Your task to perform on an android device: install app "Google Home" Image 0: 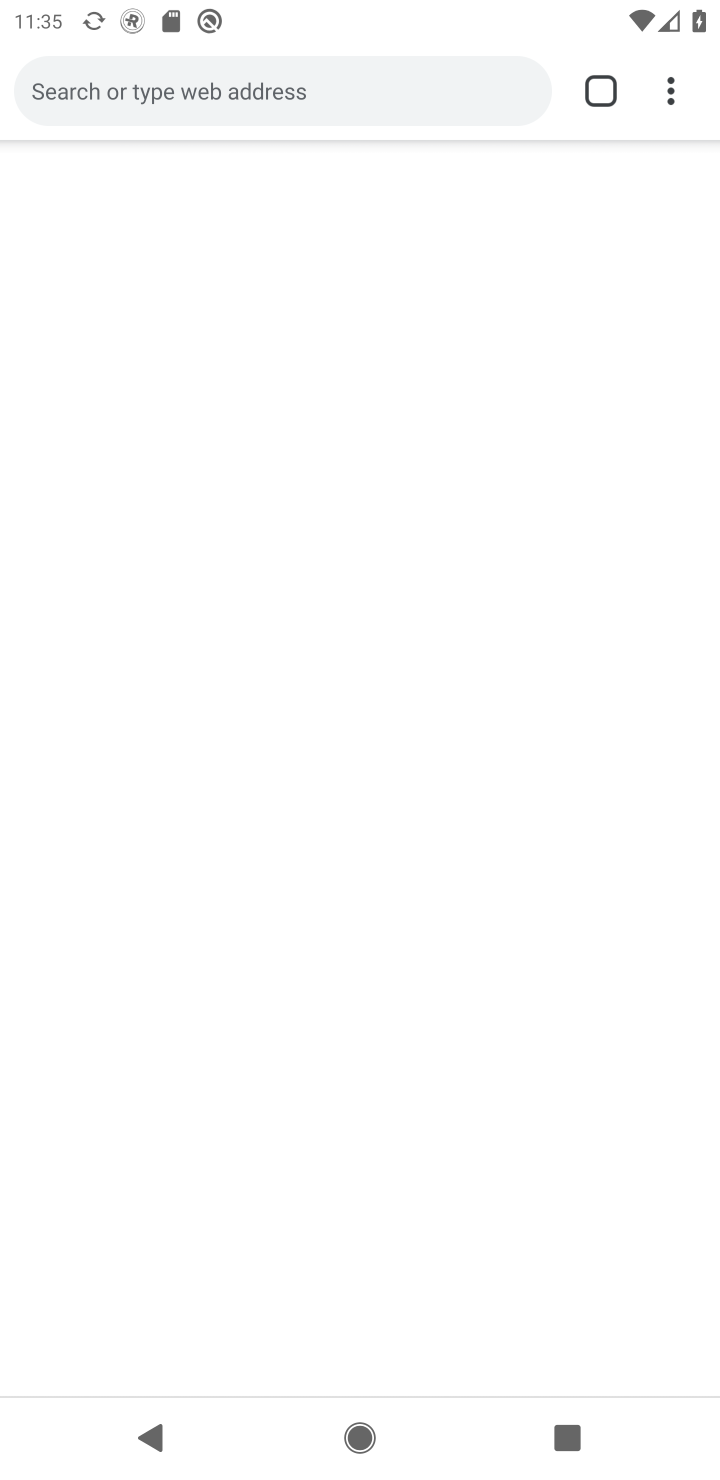
Step 0: press home button
Your task to perform on an android device: install app "Google Home" Image 1: 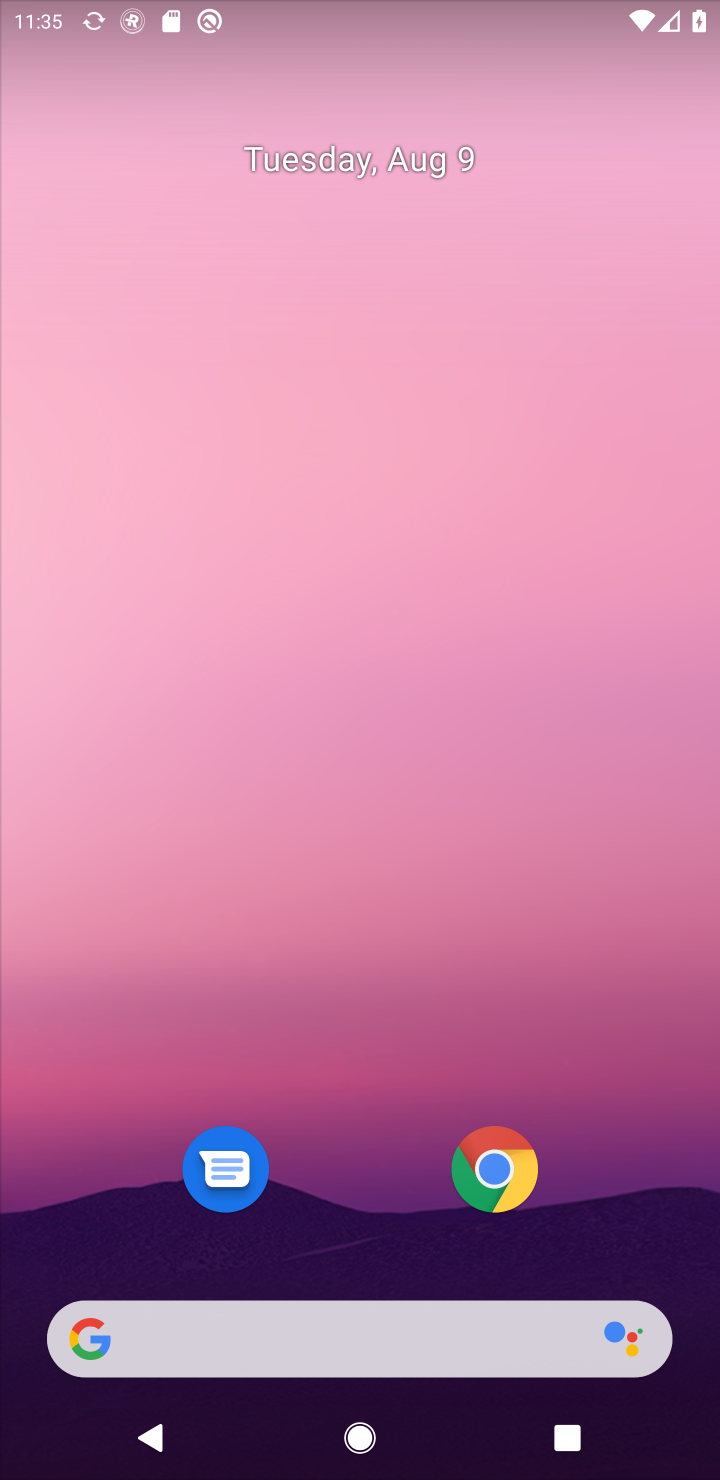
Step 1: drag from (621, 955) to (628, 76)
Your task to perform on an android device: install app "Google Home" Image 2: 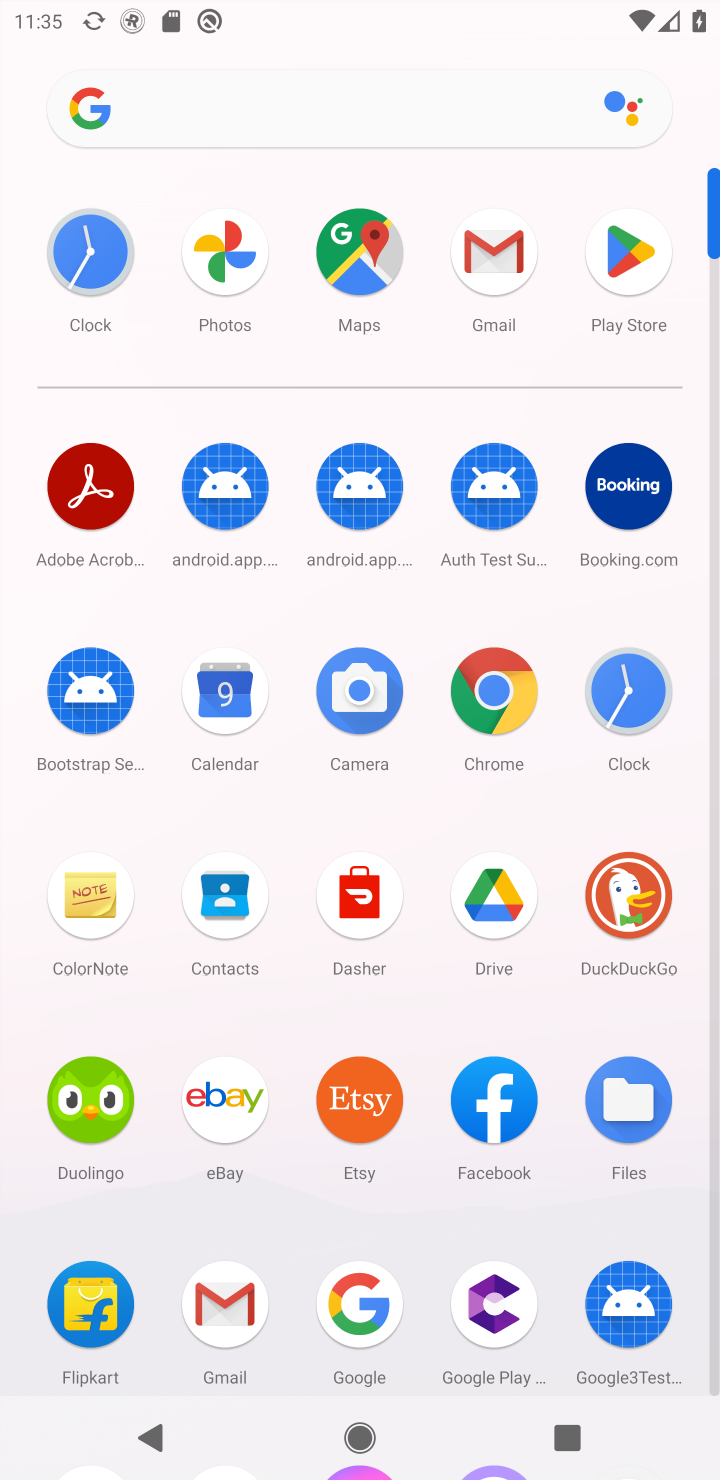
Step 2: click (613, 245)
Your task to perform on an android device: install app "Google Home" Image 3: 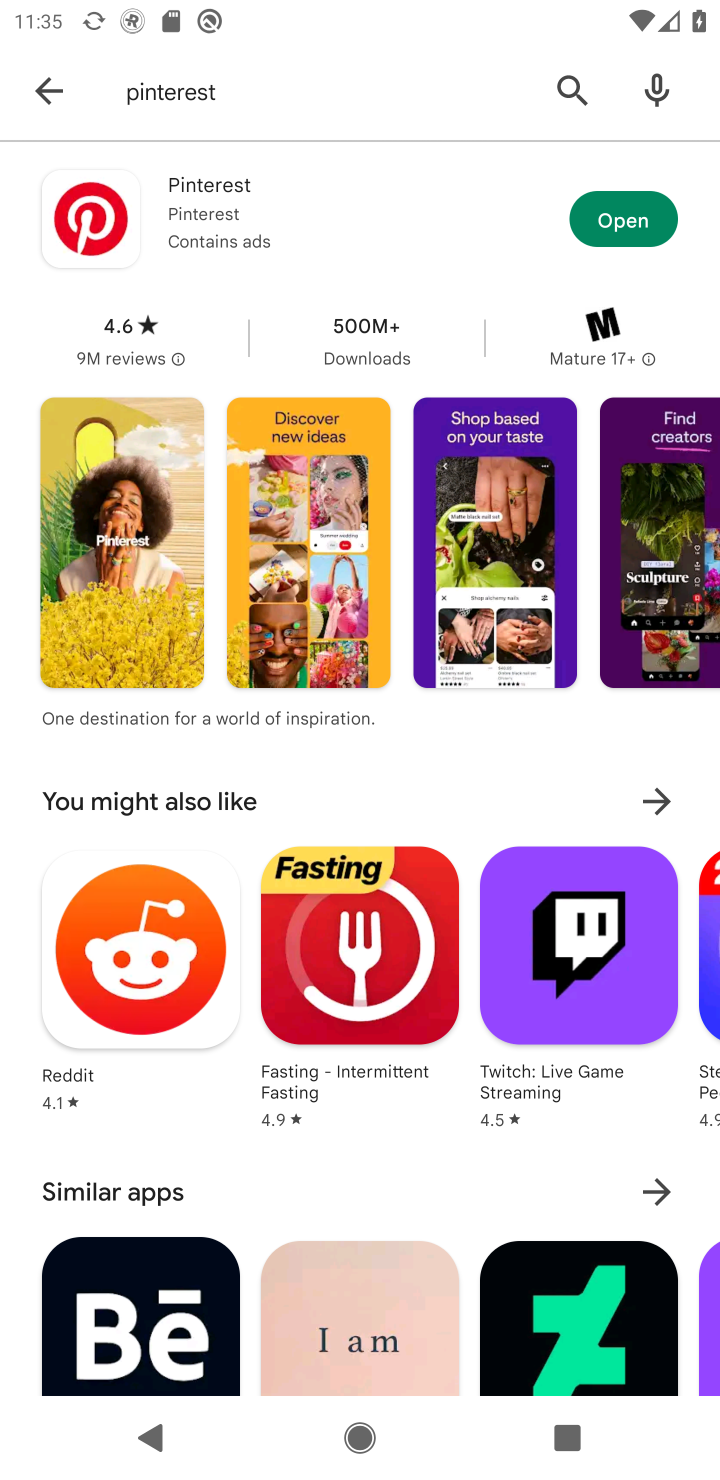
Step 3: click (561, 71)
Your task to perform on an android device: install app "Google Home" Image 4: 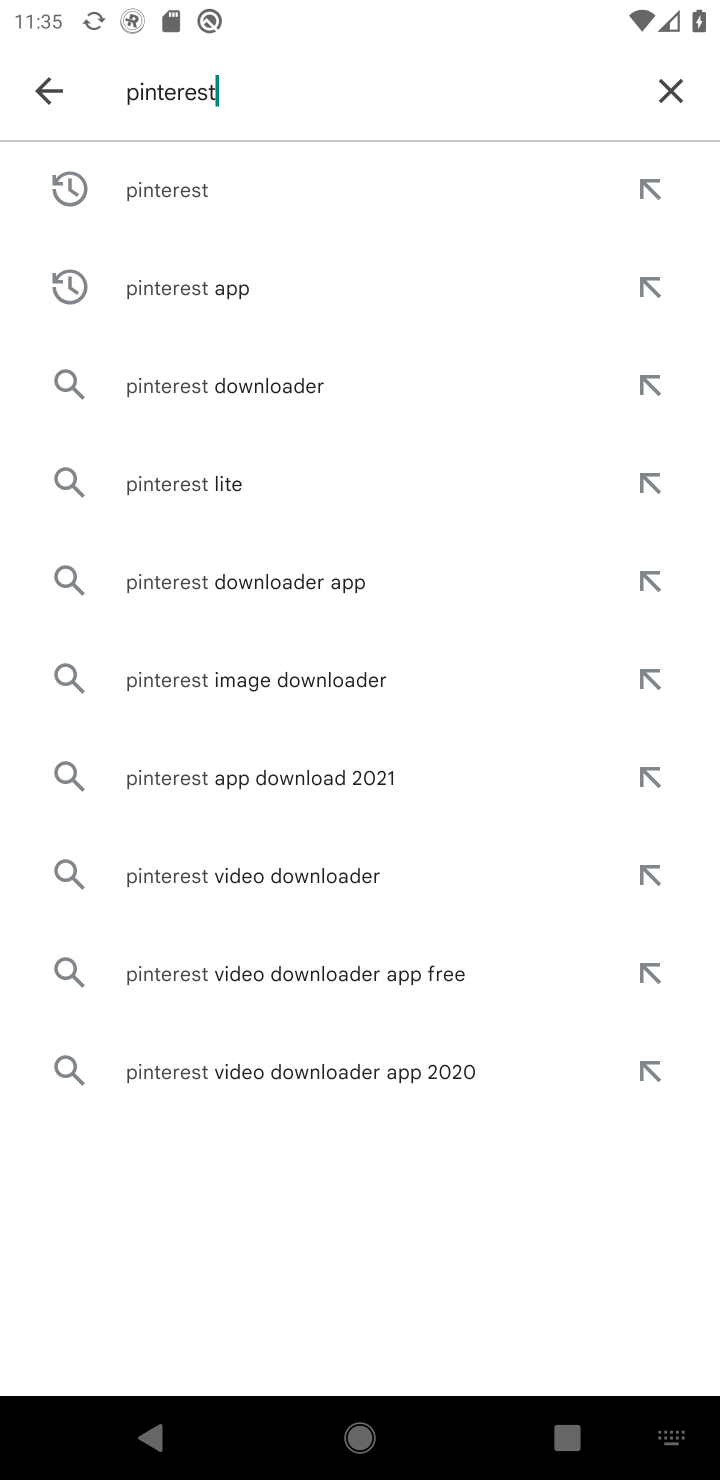
Step 4: click (642, 85)
Your task to perform on an android device: install app "Google Home" Image 5: 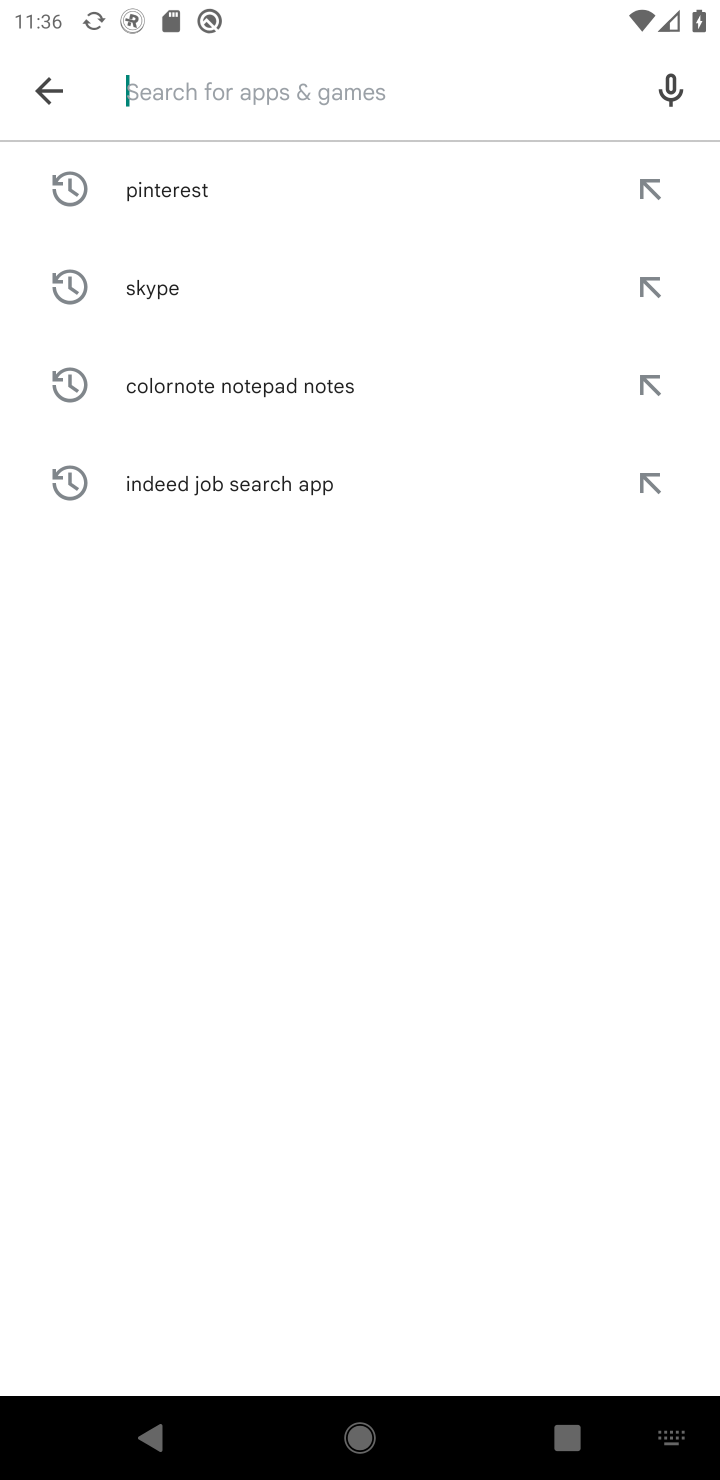
Step 5: type "google home"
Your task to perform on an android device: install app "Google Home" Image 6: 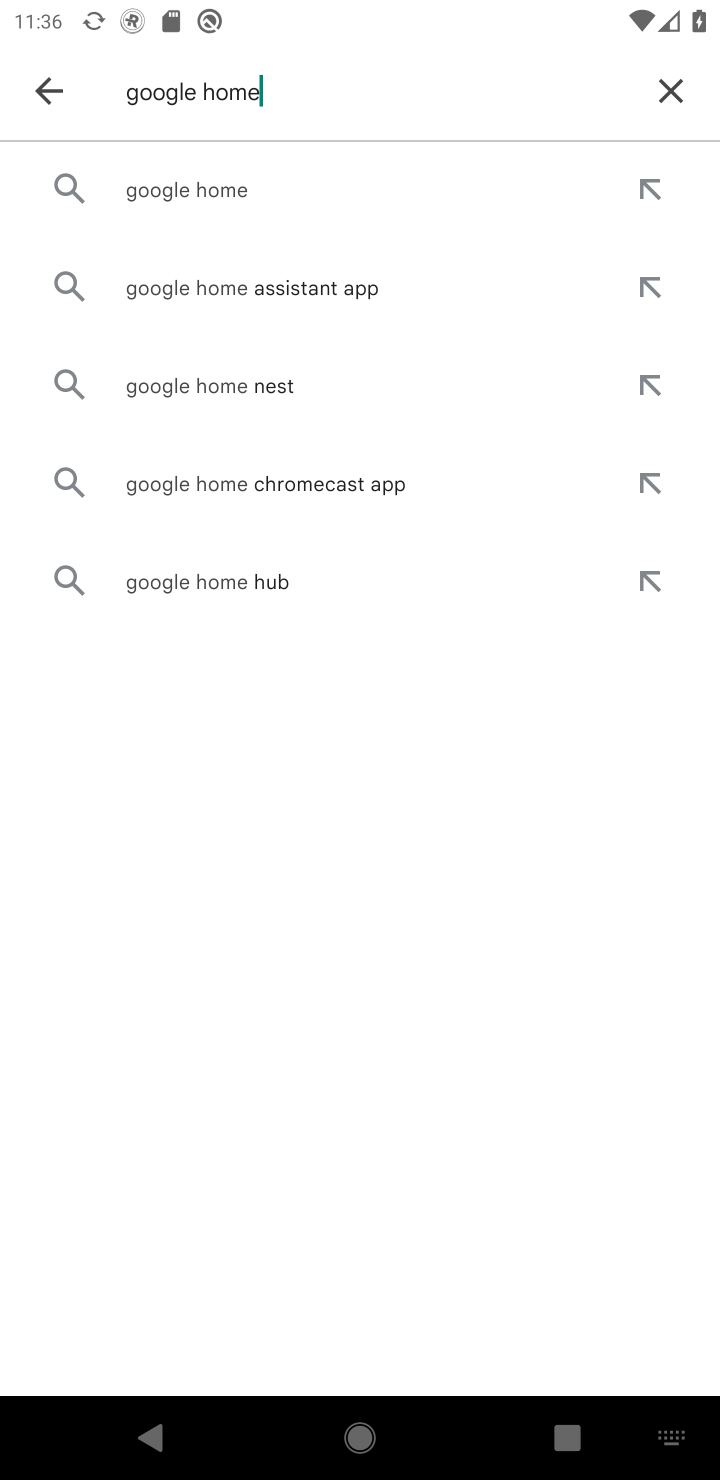
Step 6: click (242, 175)
Your task to perform on an android device: install app "Google Home" Image 7: 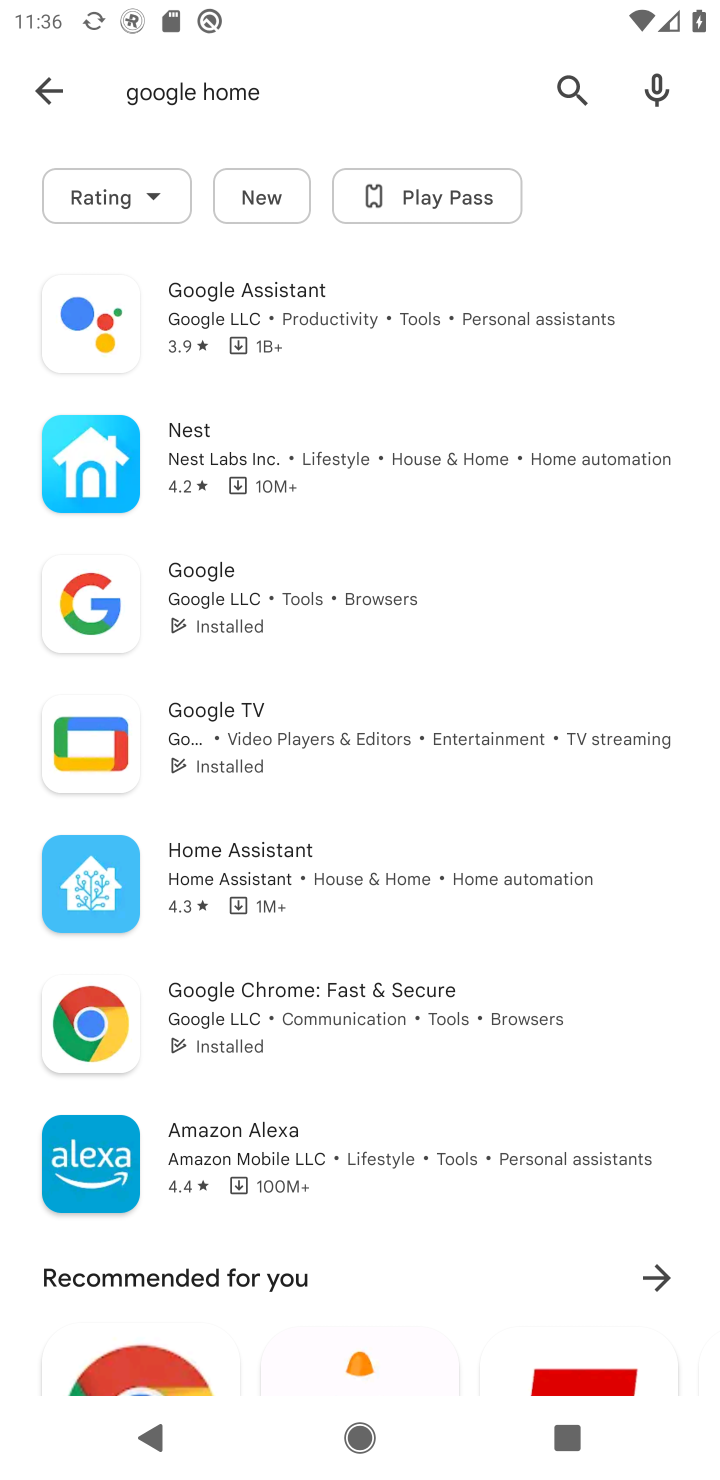
Step 7: task complete